Your task to perform on an android device: check data usage Image 0: 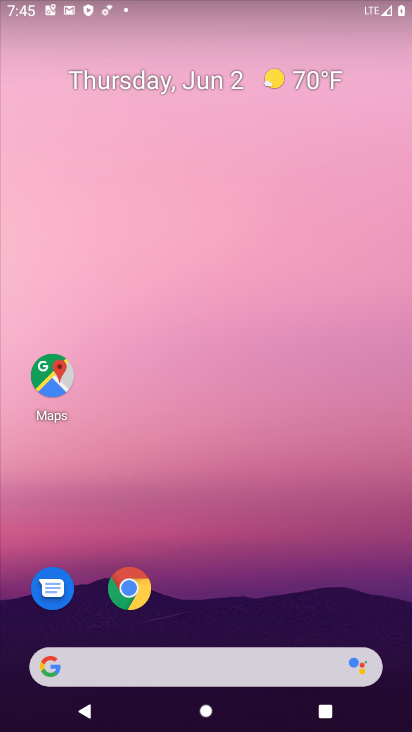
Step 0: drag from (207, 629) to (227, 122)
Your task to perform on an android device: check data usage Image 1: 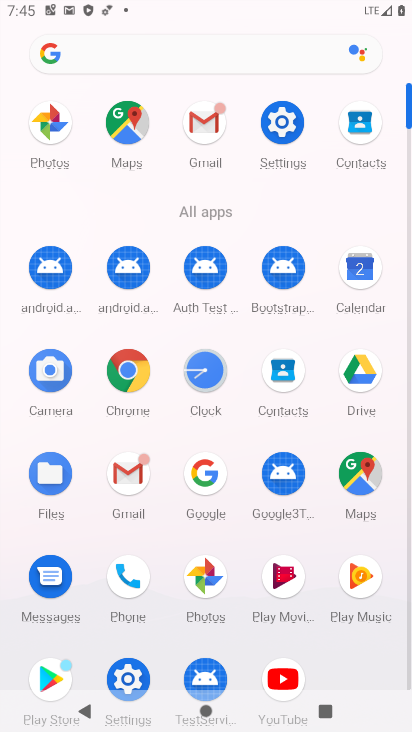
Step 1: click (286, 131)
Your task to perform on an android device: check data usage Image 2: 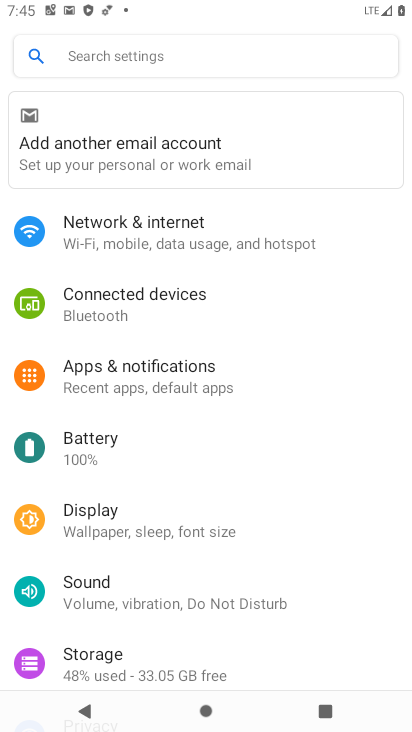
Step 2: click (154, 244)
Your task to perform on an android device: check data usage Image 3: 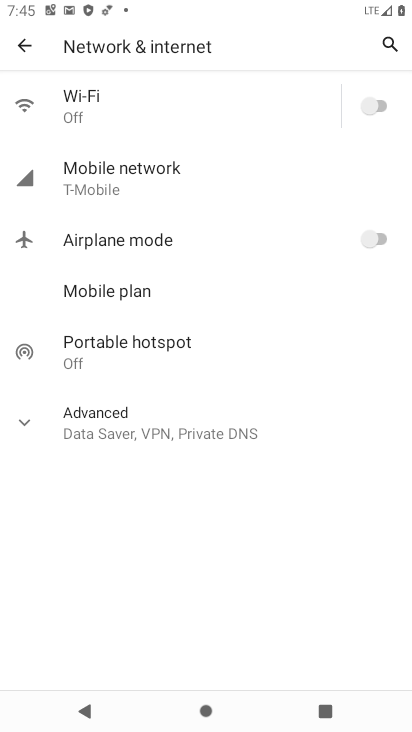
Step 3: click (158, 178)
Your task to perform on an android device: check data usage Image 4: 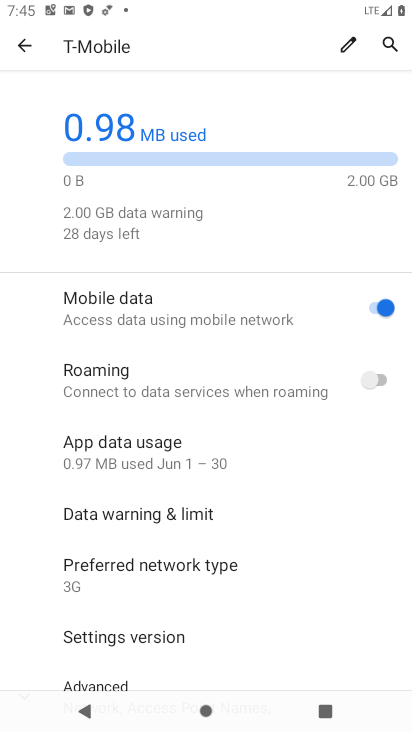
Step 4: click (177, 465)
Your task to perform on an android device: check data usage Image 5: 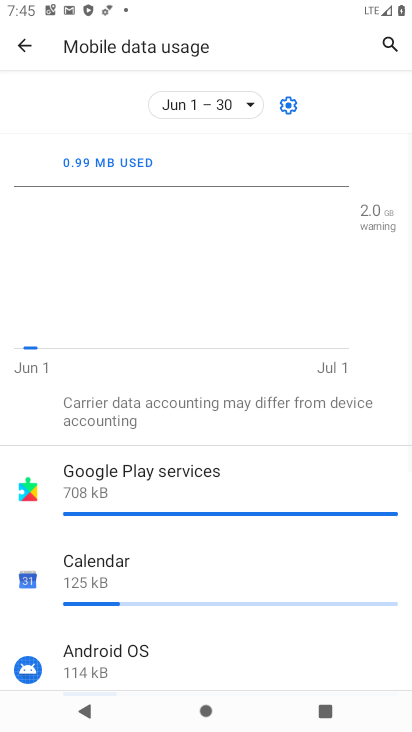
Step 5: task complete